Your task to perform on an android device: Toggle the flashlight Image 0: 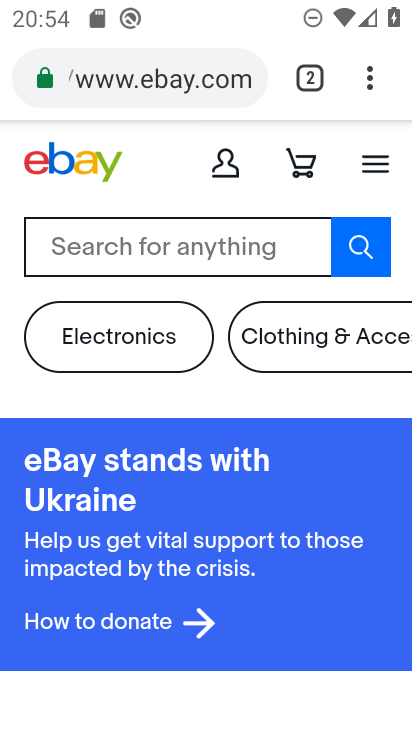
Step 0: press home button
Your task to perform on an android device: Toggle the flashlight Image 1: 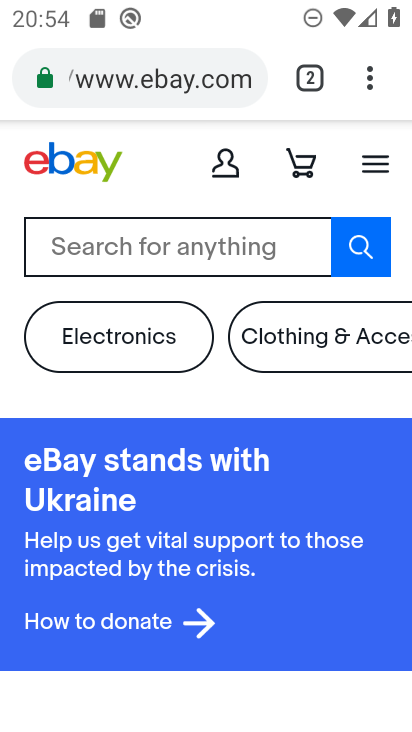
Step 1: press home button
Your task to perform on an android device: Toggle the flashlight Image 2: 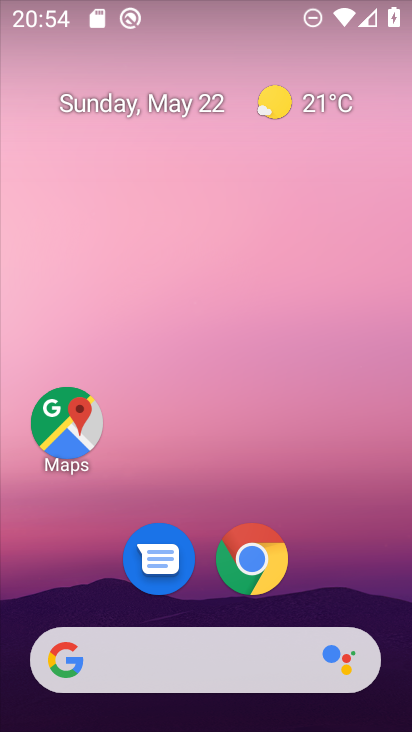
Step 2: drag from (250, 678) to (241, 91)
Your task to perform on an android device: Toggle the flashlight Image 3: 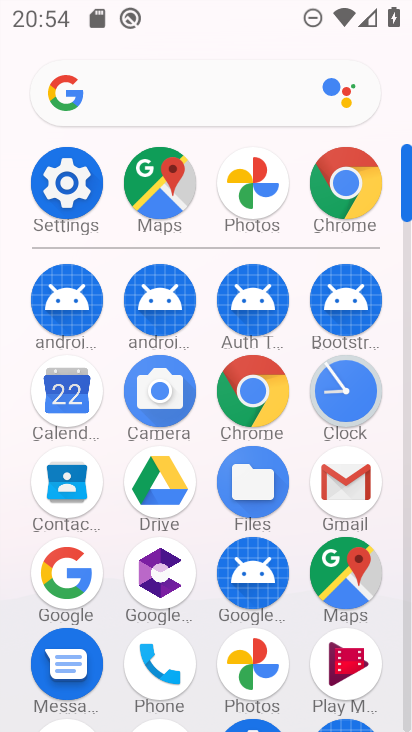
Step 3: click (74, 207)
Your task to perform on an android device: Toggle the flashlight Image 4: 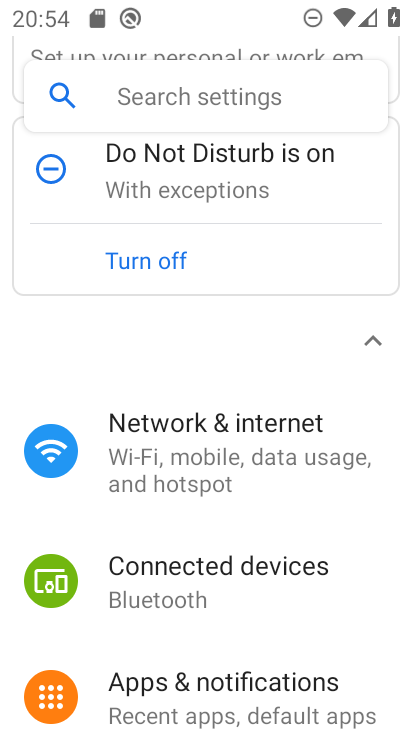
Step 4: click (172, 96)
Your task to perform on an android device: Toggle the flashlight Image 5: 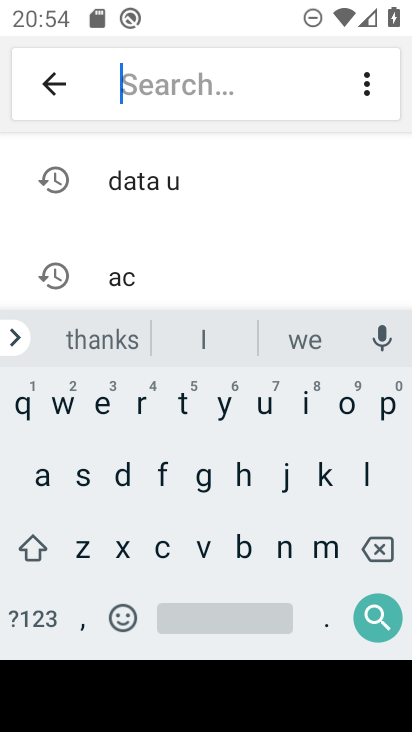
Step 5: click (158, 465)
Your task to perform on an android device: Toggle the flashlight Image 6: 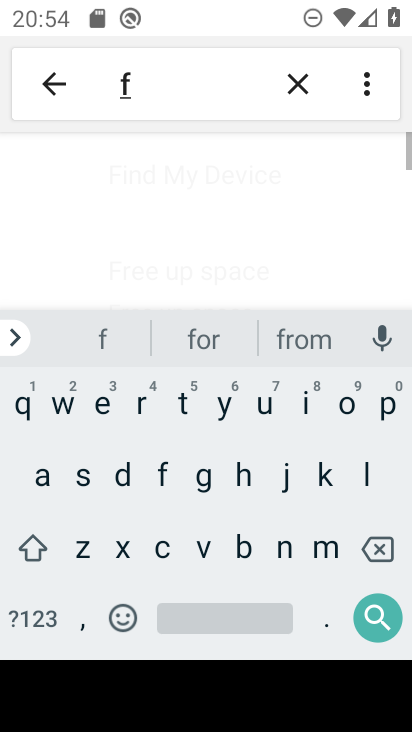
Step 6: click (368, 463)
Your task to perform on an android device: Toggle the flashlight Image 7: 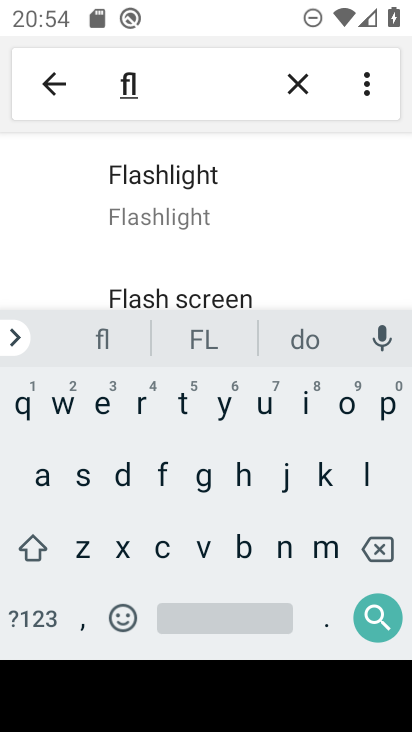
Step 7: click (165, 210)
Your task to perform on an android device: Toggle the flashlight Image 8: 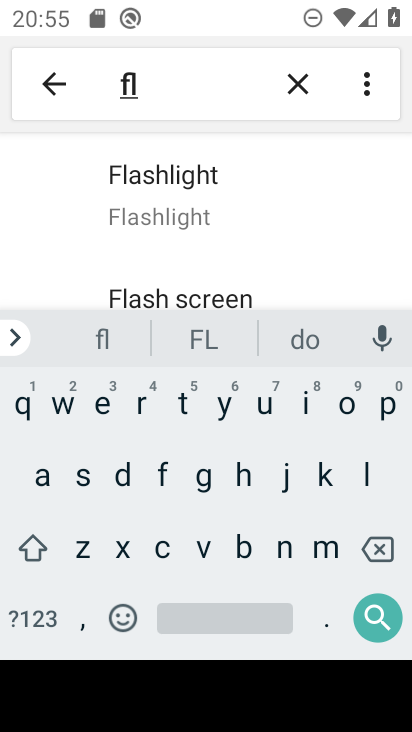
Step 8: task complete